Your task to perform on an android device: Open eBay Image 0: 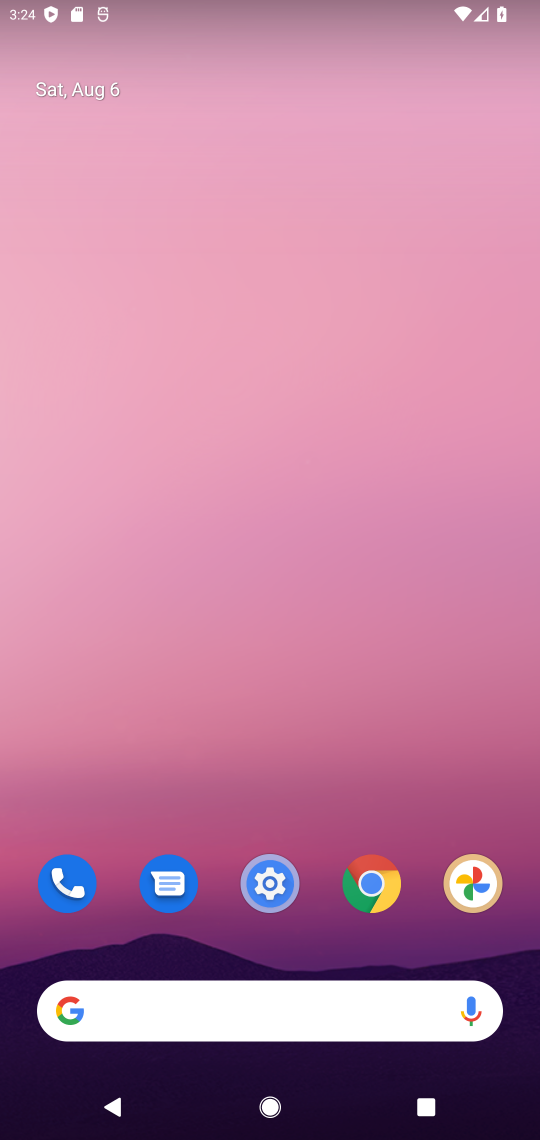
Step 0: drag from (368, 527) to (276, 625)
Your task to perform on an android device: Open eBay Image 1: 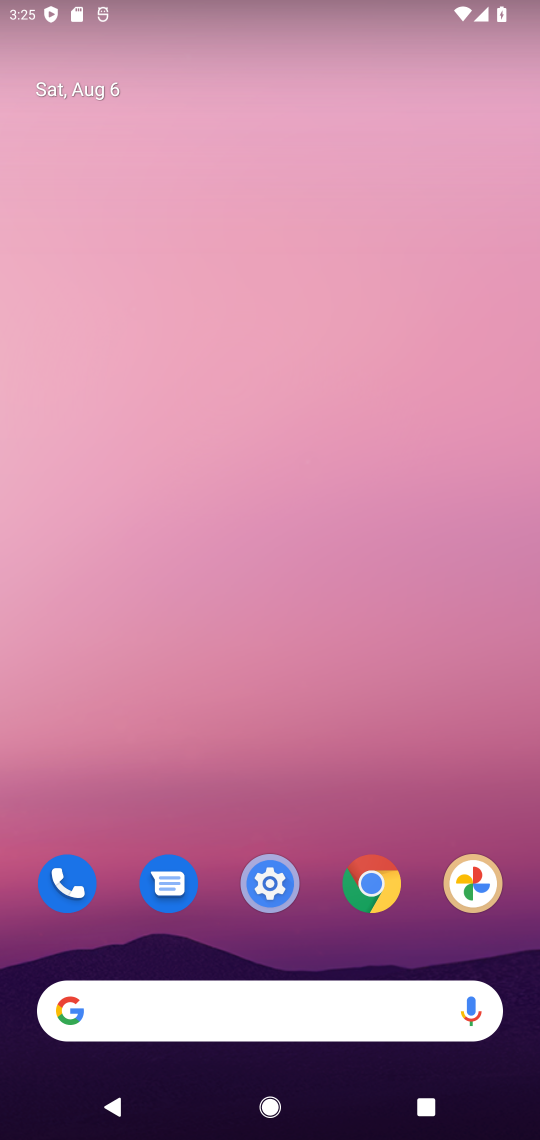
Step 1: click (370, 885)
Your task to perform on an android device: Open eBay Image 2: 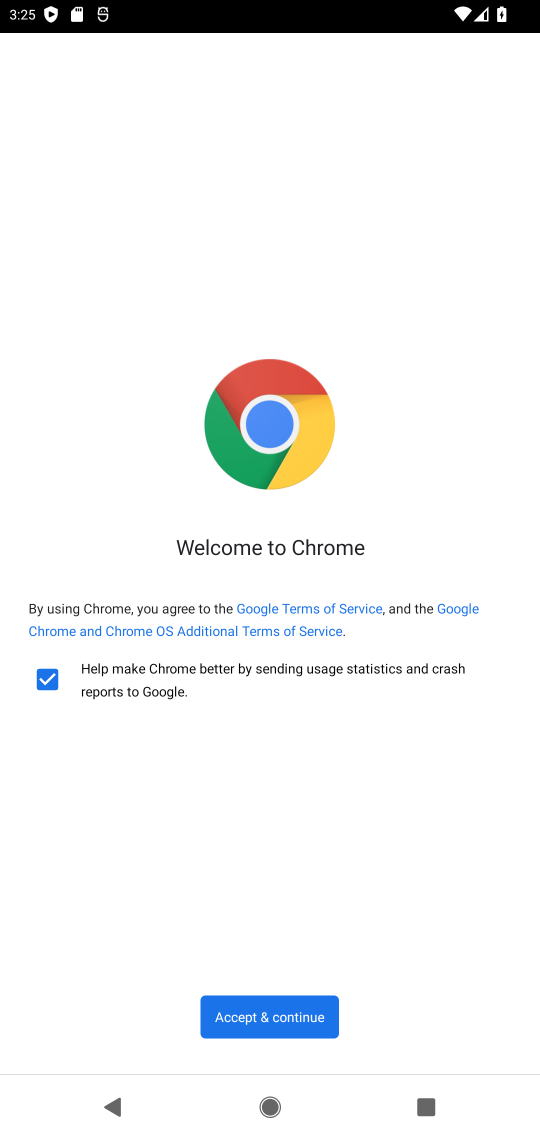
Step 2: click (277, 1024)
Your task to perform on an android device: Open eBay Image 3: 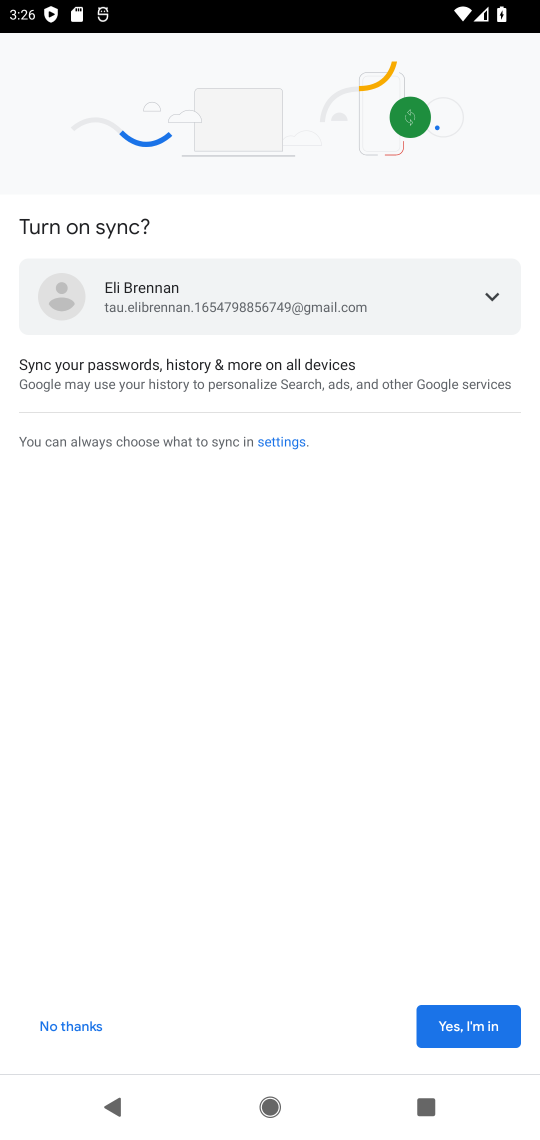
Step 3: click (460, 1038)
Your task to perform on an android device: Open eBay Image 4: 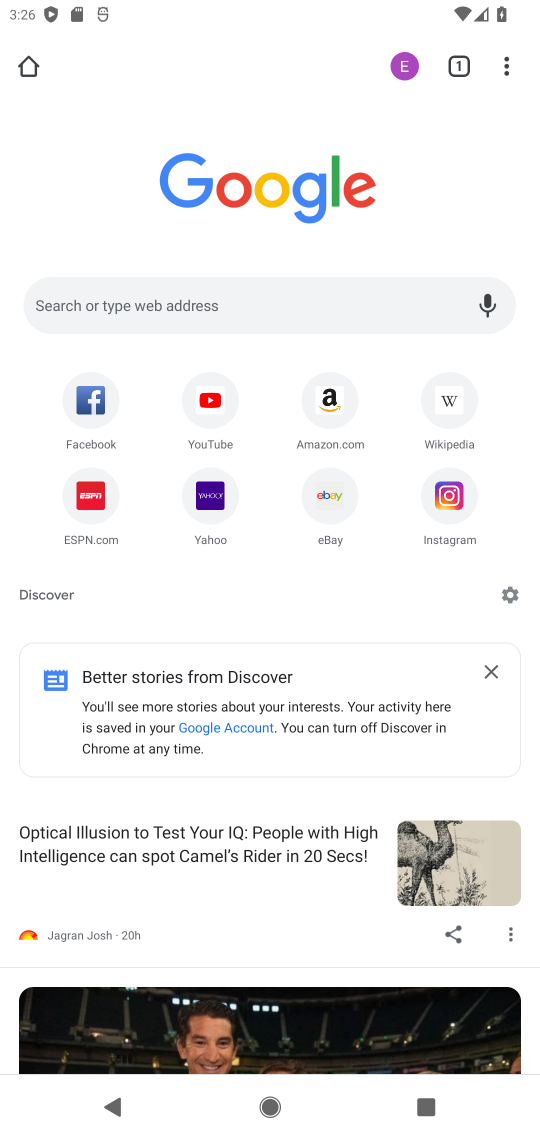
Step 4: click (336, 508)
Your task to perform on an android device: Open eBay Image 5: 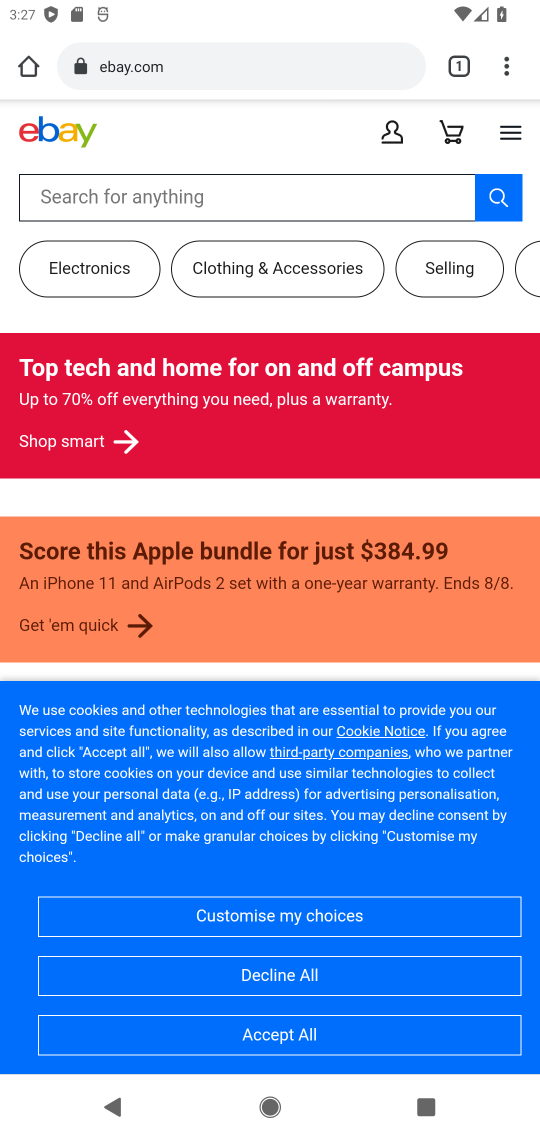
Step 5: task complete